Your task to perform on an android device: allow cookies in the chrome app Image 0: 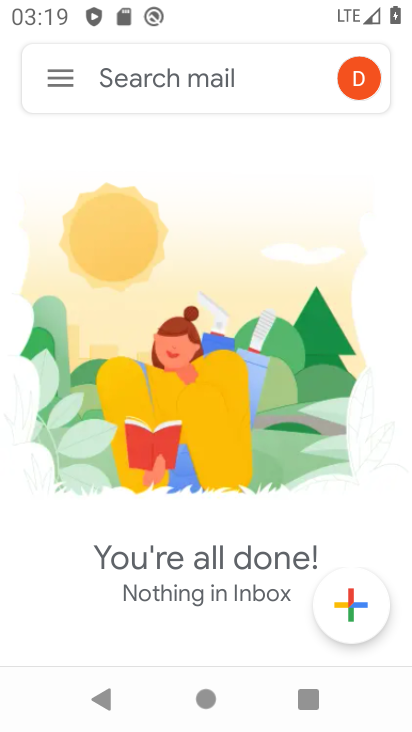
Step 0: press home button
Your task to perform on an android device: allow cookies in the chrome app Image 1: 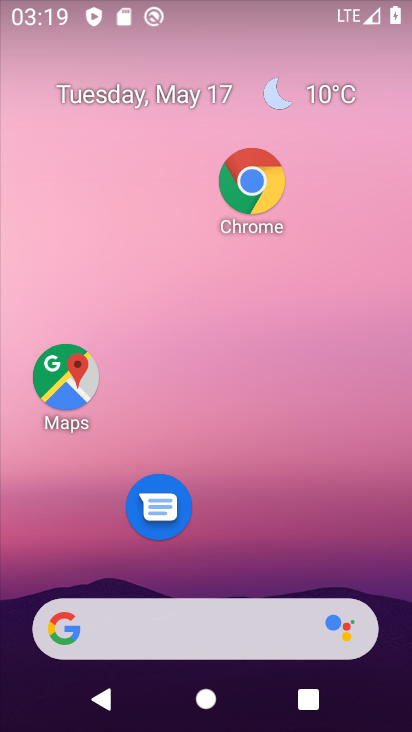
Step 1: click (256, 174)
Your task to perform on an android device: allow cookies in the chrome app Image 2: 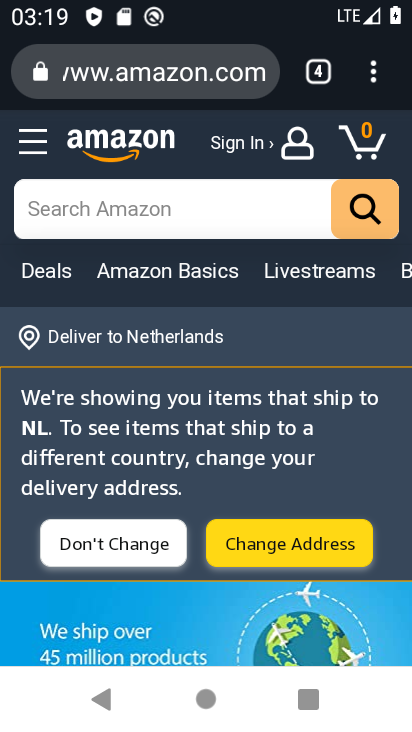
Step 2: click (386, 83)
Your task to perform on an android device: allow cookies in the chrome app Image 3: 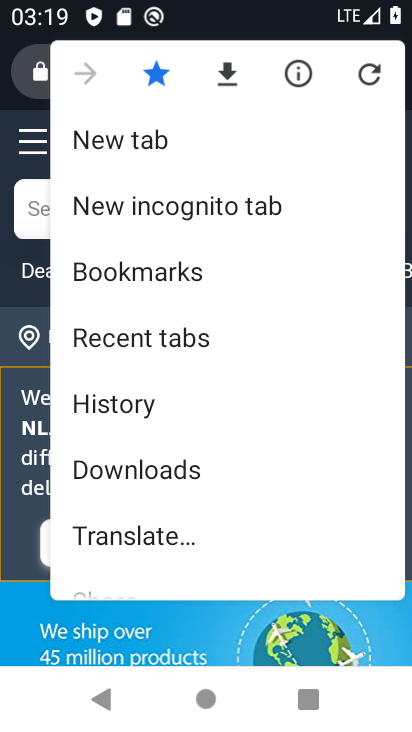
Step 3: drag from (135, 480) to (137, 115)
Your task to perform on an android device: allow cookies in the chrome app Image 4: 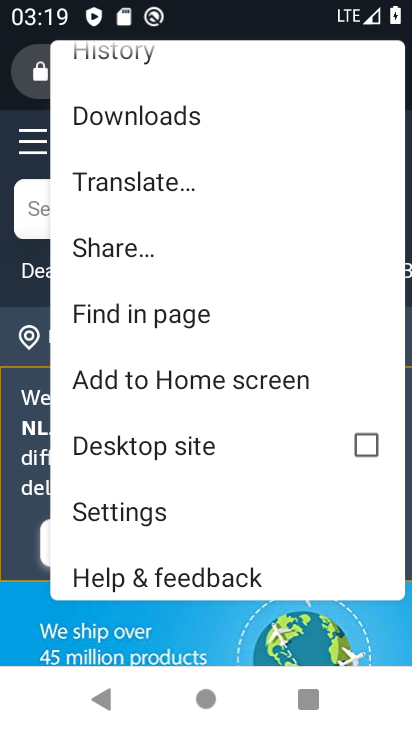
Step 4: click (170, 56)
Your task to perform on an android device: allow cookies in the chrome app Image 5: 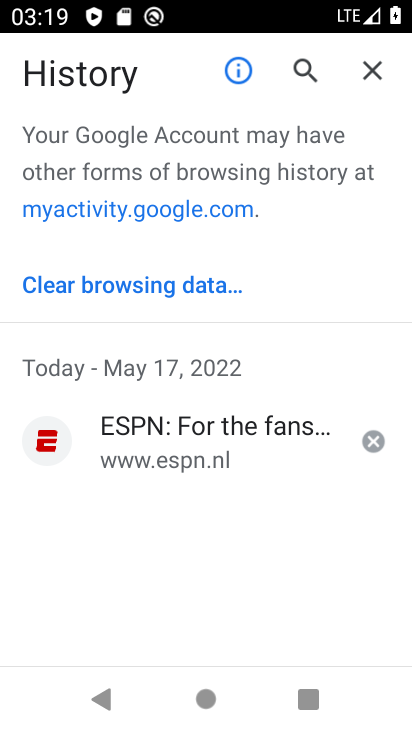
Step 5: click (145, 300)
Your task to perform on an android device: allow cookies in the chrome app Image 6: 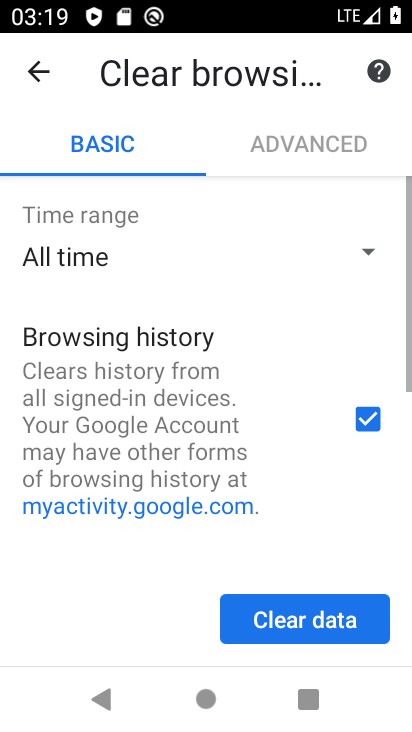
Step 6: click (373, 410)
Your task to perform on an android device: allow cookies in the chrome app Image 7: 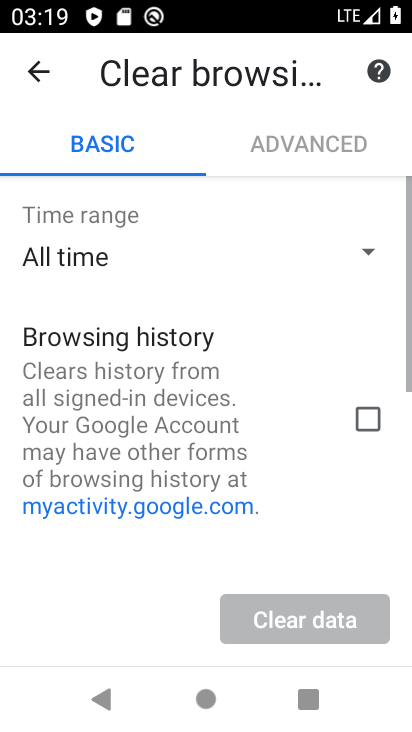
Step 7: drag from (157, 401) to (208, 133)
Your task to perform on an android device: allow cookies in the chrome app Image 8: 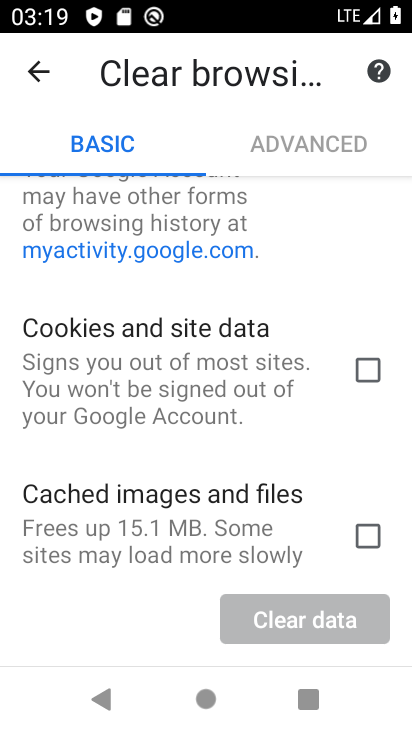
Step 8: click (367, 370)
Your task to perform on an android device: allow cookies in the chrome app Image 9: 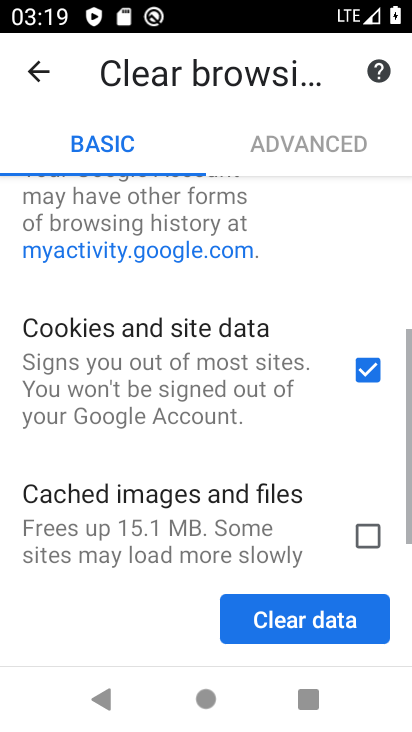
Step 9: click (289, 634)
Your task to perform on an android device: allow cookies in the chrome app Image 10: 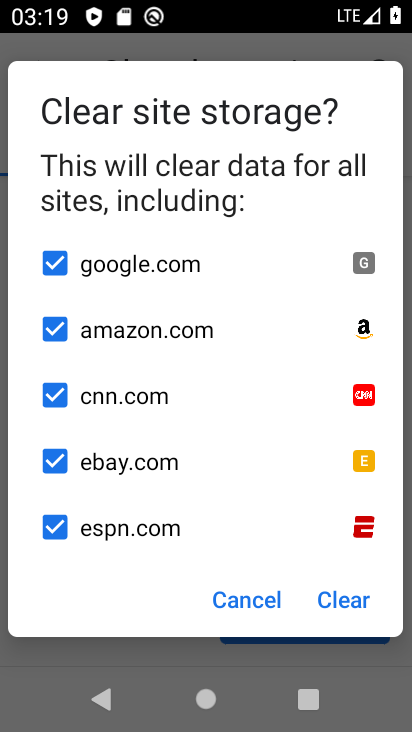
Step 10: click (366, 602)
Your task to perform on an android device: allow cookies in the chrome app Image 11: 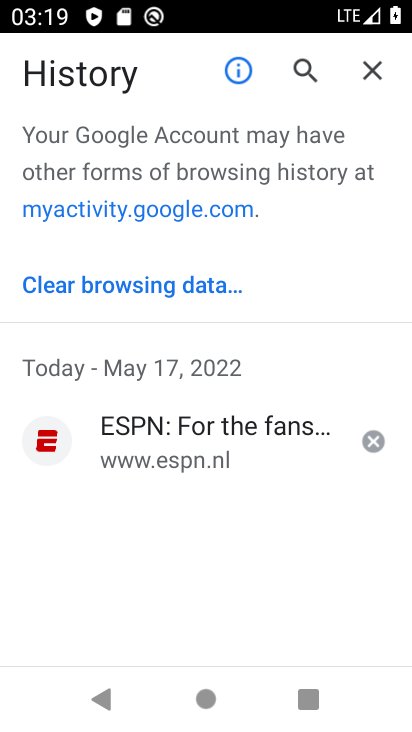
Step 11: task complete